Your task to perform on an android device: clear history in the chrome app Image 0: 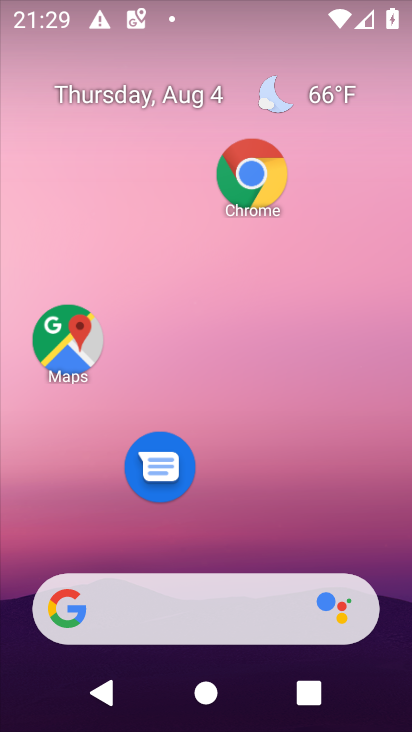
Step 0: press home button
Your task to perform on an android device: clear history in the chrome app Image 1: 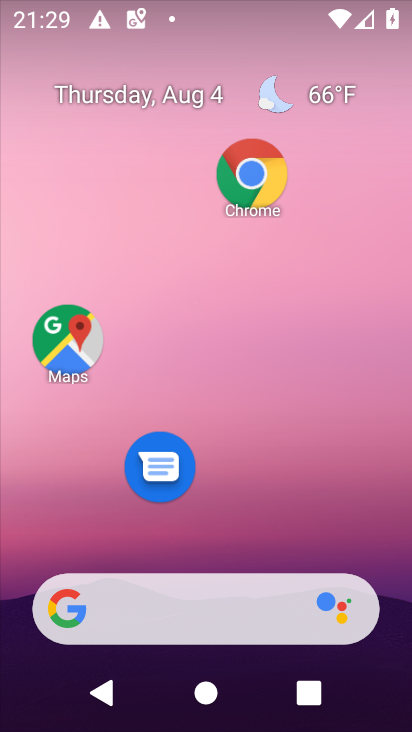
Step 1: drag from (300, 546) to (319, 0)
Your task to perform on an android device: clear history in the chrome app Image 2: 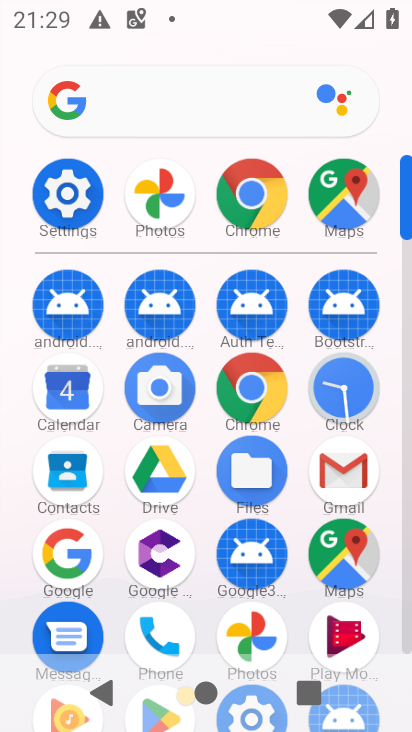
Step 2: click (272, 379)
Your task to perform on an android device: clear history in the chrome app Image 3: 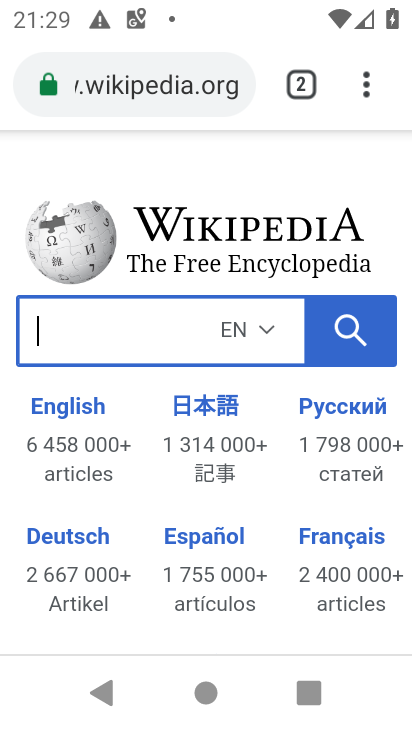
Step 3: drag from (366, 81) to (152, 521)
Your task to perform on an android device: clear history in the chrome app Image 4: 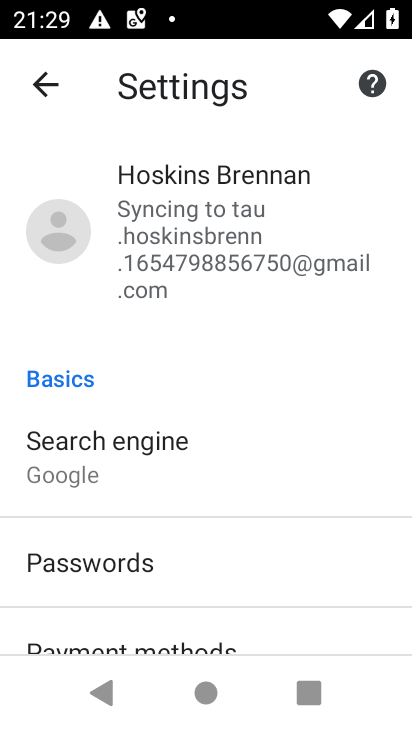
Step 4: drag from (277, 585) to (342, 137)
Your task to perform on an android device: clear history in the chrome app Image 5: 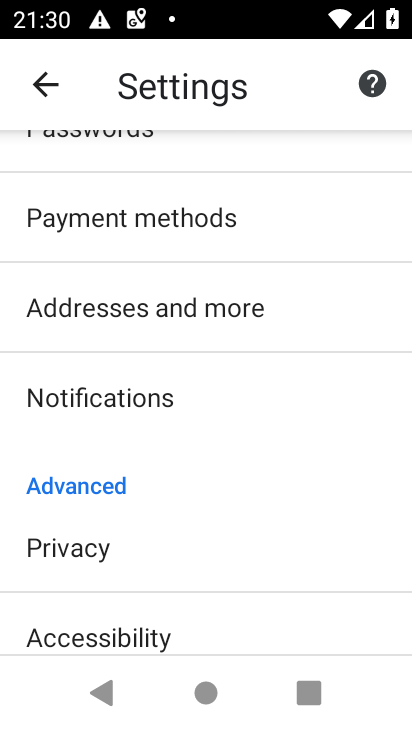
Step 5: click (43, 78)
Your task to perform on an android device: clear history in the chrome app Image 6: 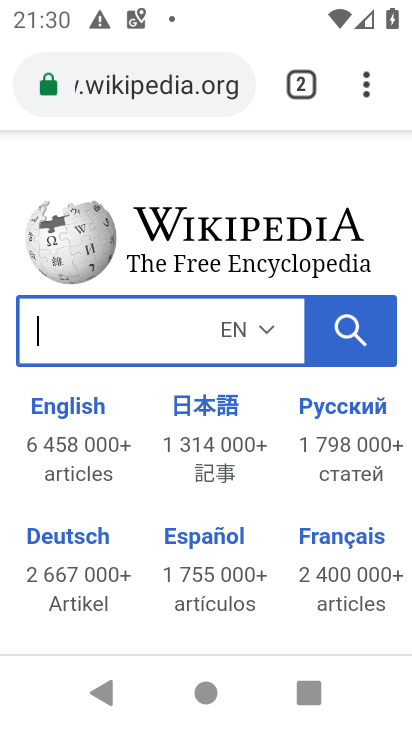
Step 6: drag from (365, 84) to (89, 157)
Your task to perform on an android device: clear history in the chrome app Image 7: 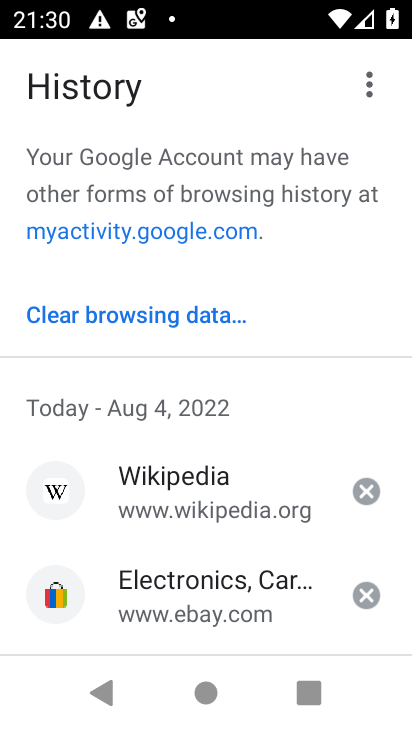
Step 7: drag from (313, 504) to (316, 166)
Your task to perform on an android device: clear history in the chrome app Image 8: 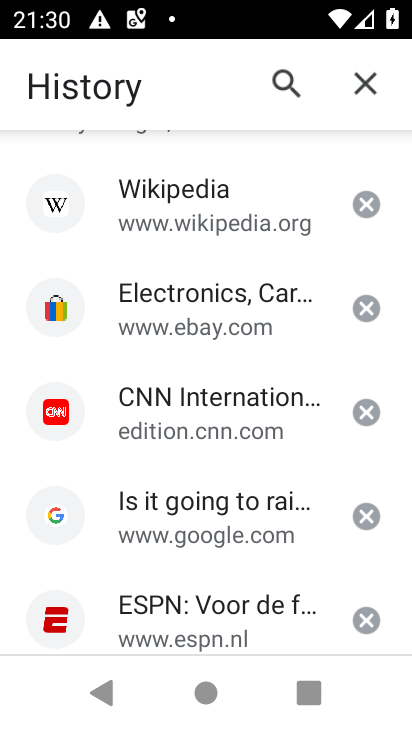
Step 8: click (370, 201)
Your task to perform on an android device: clear history in the chrome app Image 9: 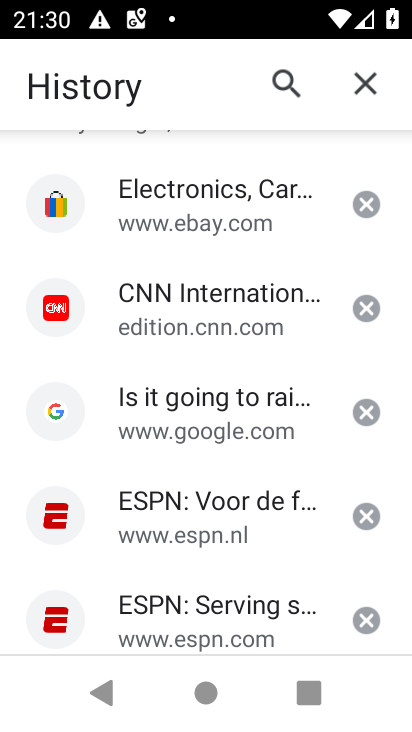
Step 9: click (370, 201)
Your task to perform on an android device: clear history in the chrome app Image 10: 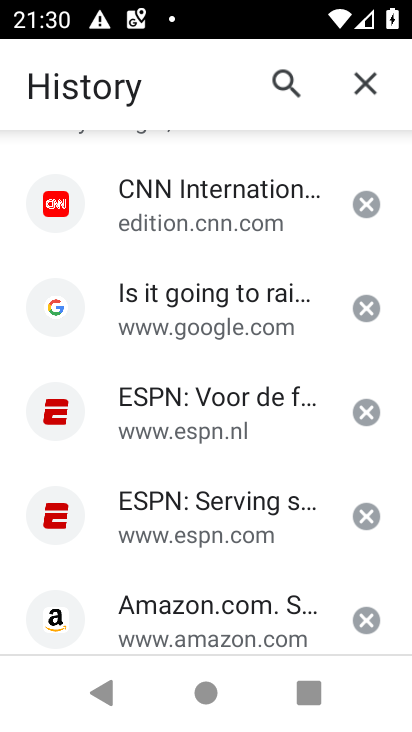
Step 10: click (370, 201)
Your task to perform on an android device: clear history in the chrome app Image 11: 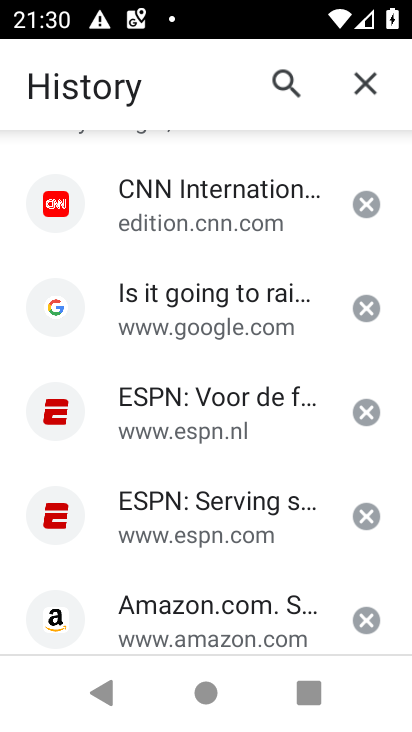
Step 11: click (370, 201)
Your task to perform on an android device: clear history in the chrome app Image 12: 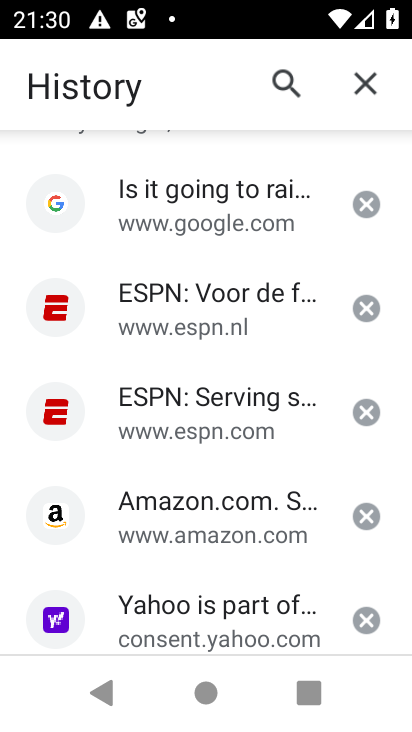
Step 12: click (370, 201)
Your task to perform on an android device: clear history in the chrome app Image 13: 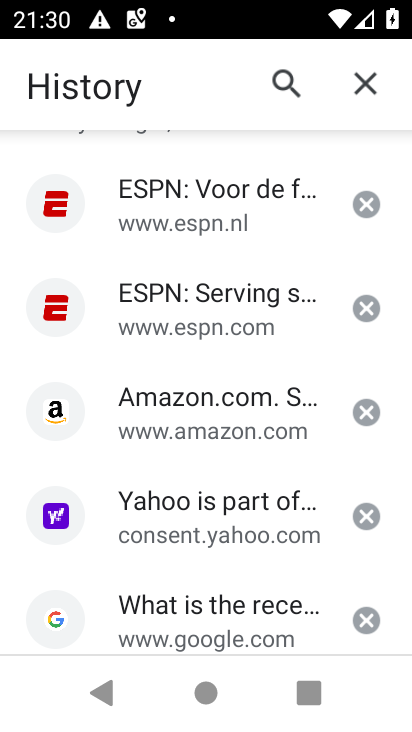
Step 13: click (370, 201)
Your task to perform on an android device: clear history in the chrome app Image 14: 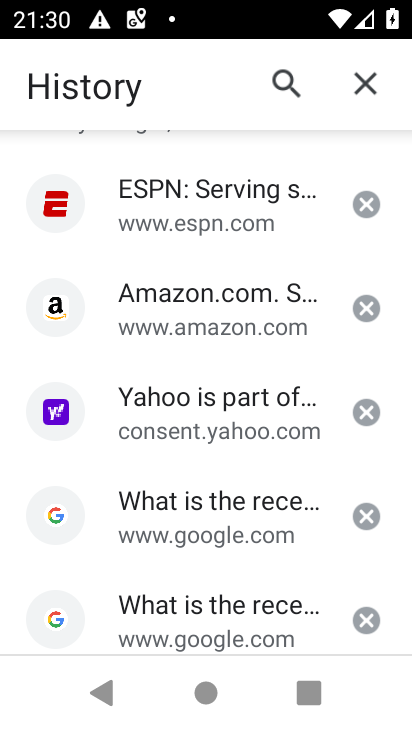
Step 14: click (370, 201)
Your task to perform on an android device: clear history in the chrome app Image 15: 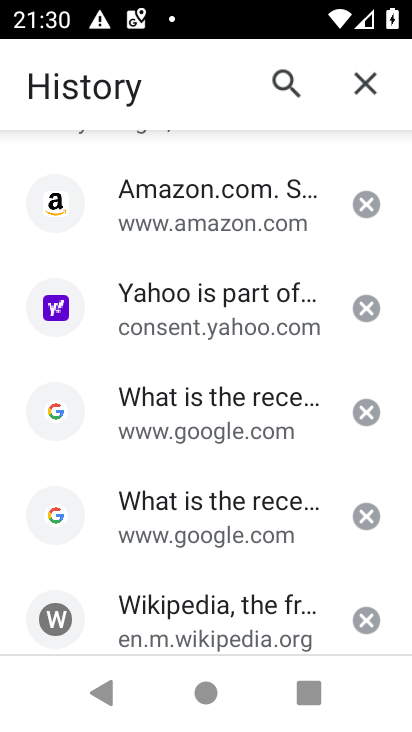
Step 15: click (370, 201)
Your task to perform on an android device: clear history in the chrome app Image 16: 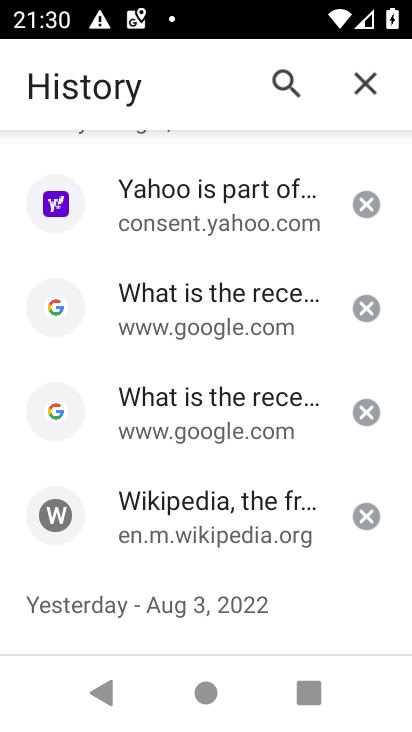
Step 16: click (370, 201)
Your task to perform on an android device: clear history in the chrome app Image 17: 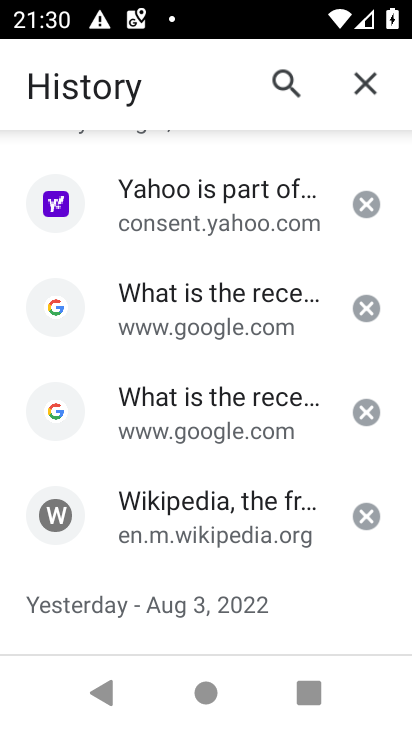
Step 17: click (370, 201)
Your task to perform on an android device: clear history in the chrome app Image 18: 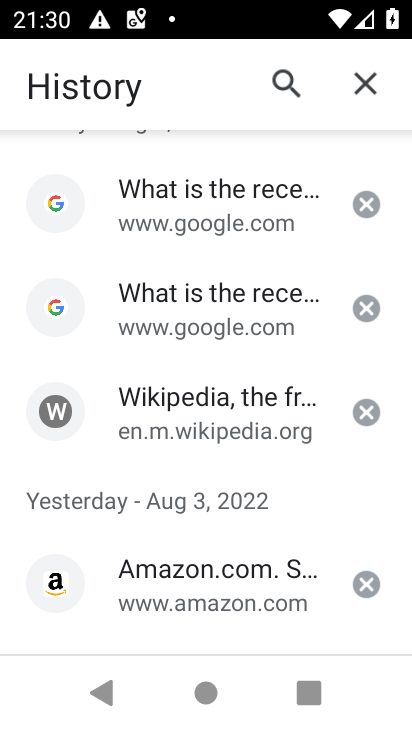
Step 18: click (370, 201)
Your task to perform on an android device: clear history in the chrome app Image 19: 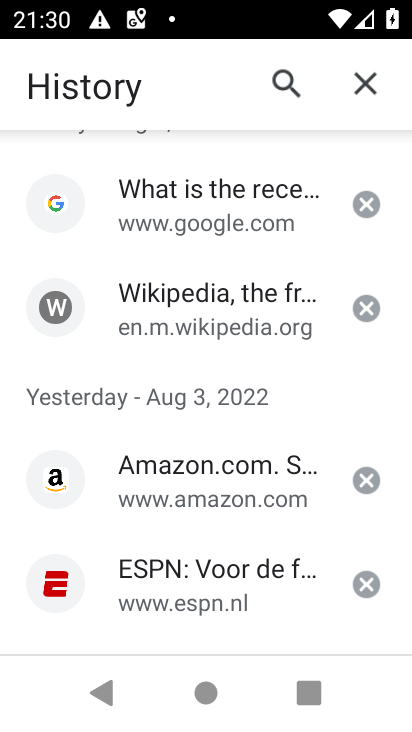
Step 19: click (370, 201)
Your task to perform on an android device: clear history in the chrome app Image 20: 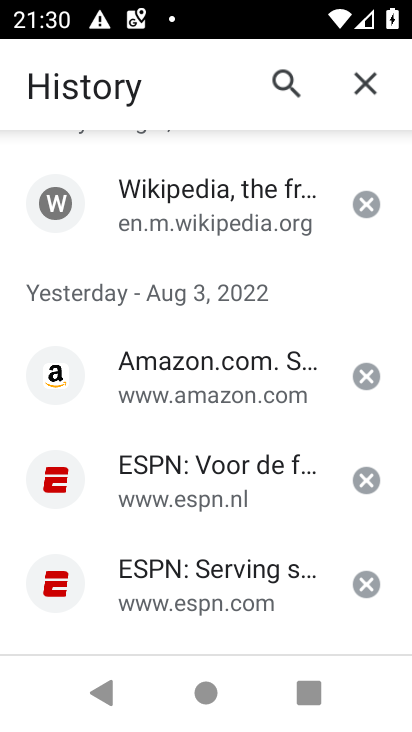
Step 20: click (370, 201)
Your task to perform on an android device: clear history in the chrome app Image 21: 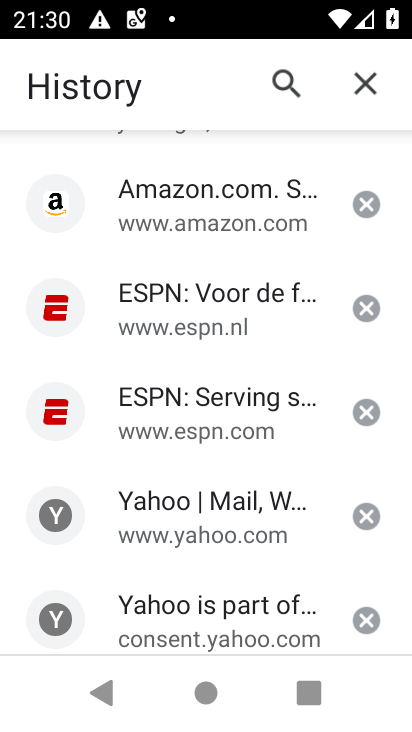
Step 21: click (370, 201)
Your task to perform on an android device: clear history in the chrome app Image 22: 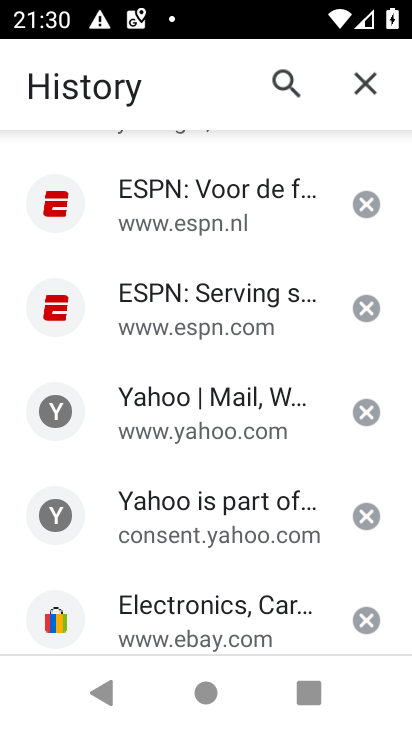
Step 22: click (370, 201)
Your task to perform on an android device: clear history in the chrome app Image 23: 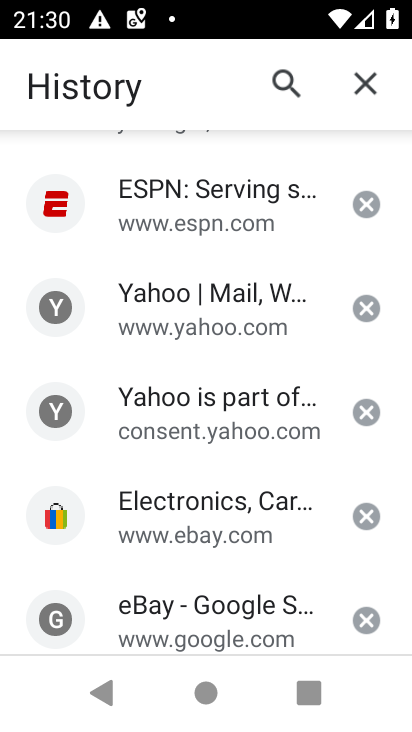
Step 23: click (370, 201)
Your task to perform on an android device: clear history in the chrome app Image 24: 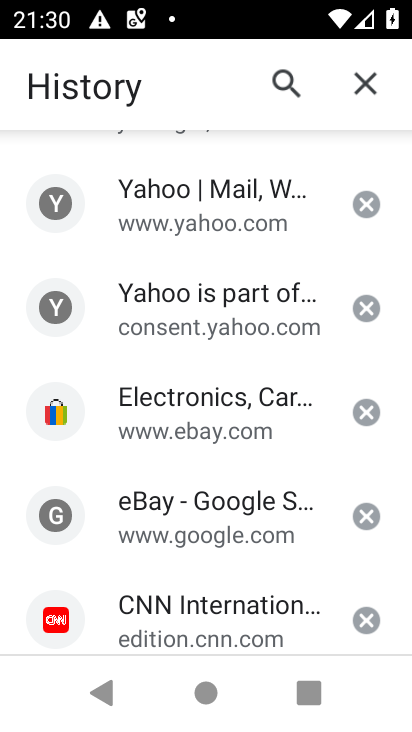
Step 24: click (370, 201)
Your task to perform on an android device: clear history in the chrome app Image 25: 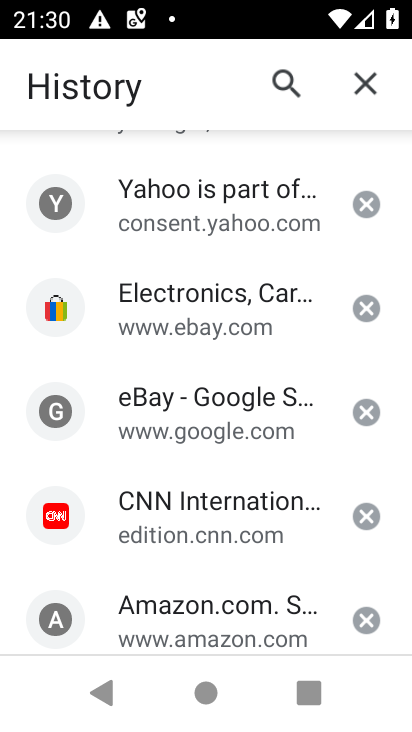
Step 25: click (370, 201)
Your task to perform on an android device: clear history in the chrome app Image 26: 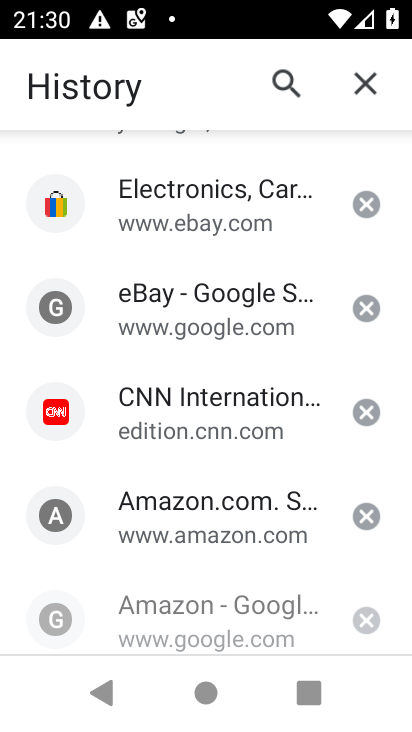
Step 26: click (370, 201)
Your task to perform on an android device: clear history in the chrome app Image 27: 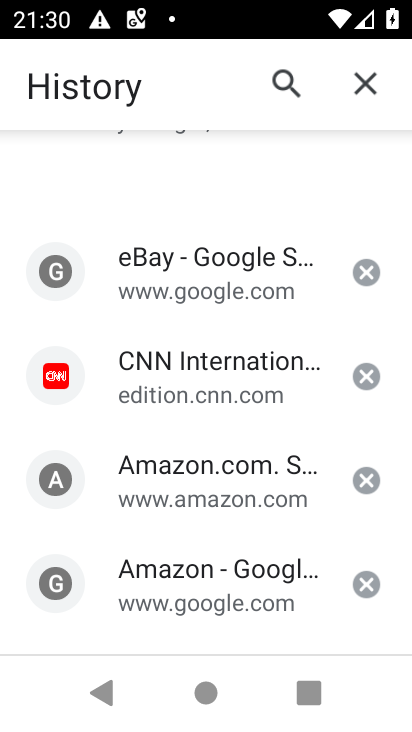
Step 27: click (370, 201)
Your task to perform on an android device: clear history in the chrome app Image 28: 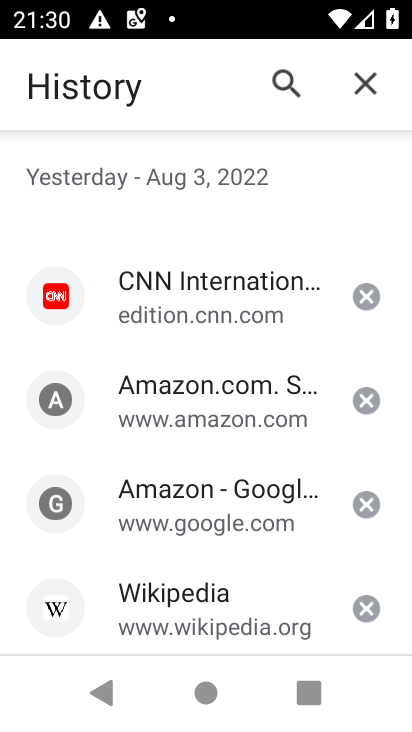
Step 28: click (370, 201)
Your task to perform on an android device: clear history in the chrome app Image 29: 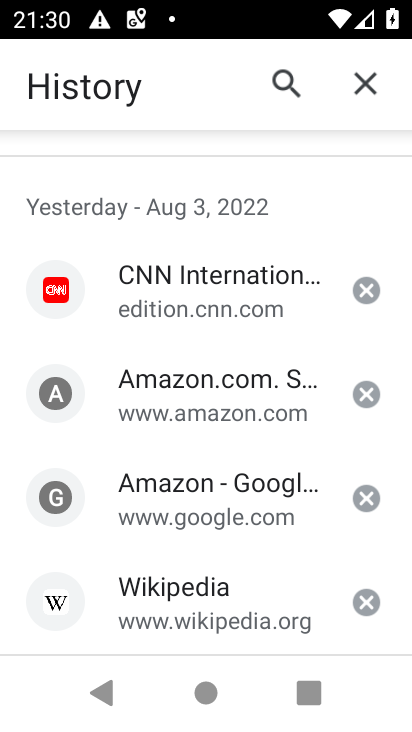
Step 29: click (370, 201)
Your task to perform on an android device: clear history in the chrome app Image 30: 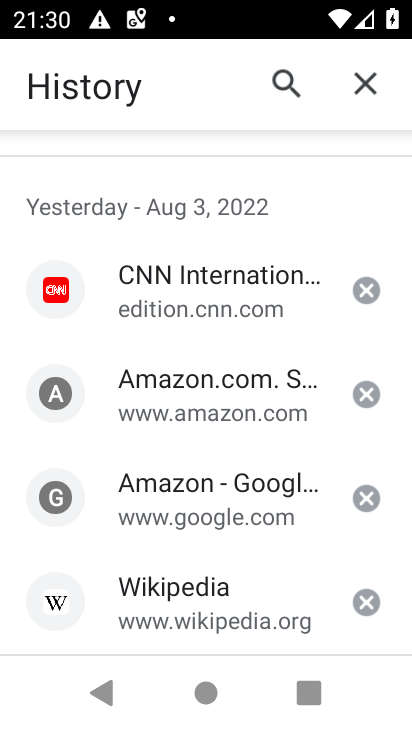
Step 30: click (373, 277)
Your task to perform on an android device: clear history in the chrome app Image 31: 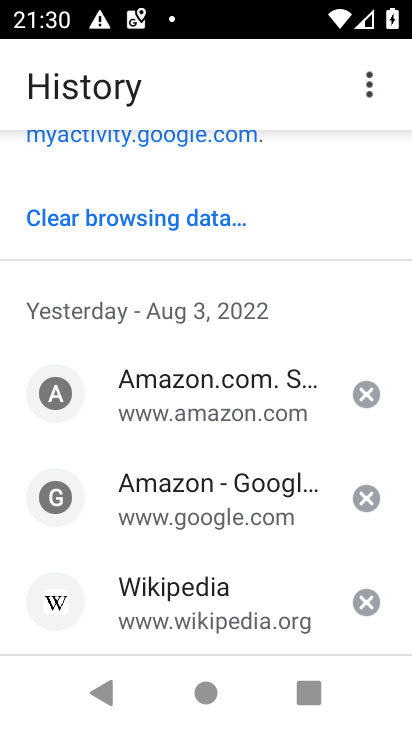
Step 31: click (361, 404)
Your task to perform on an android device: clear history in the chrome app Image 32: 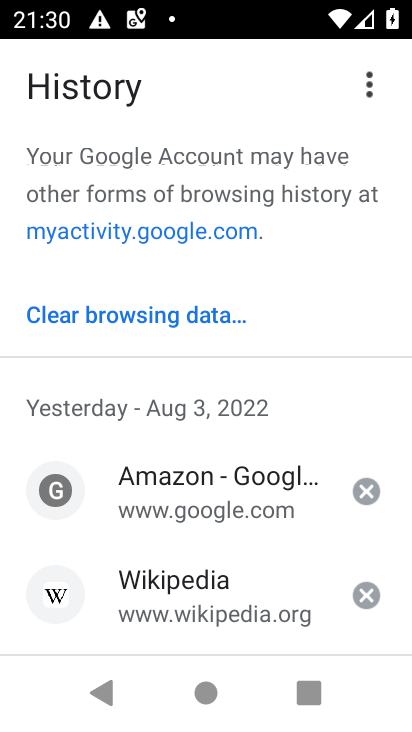
Step 32: click (368, 503)
Your task to perform on an android device: clear history in the chrome app Image 33: 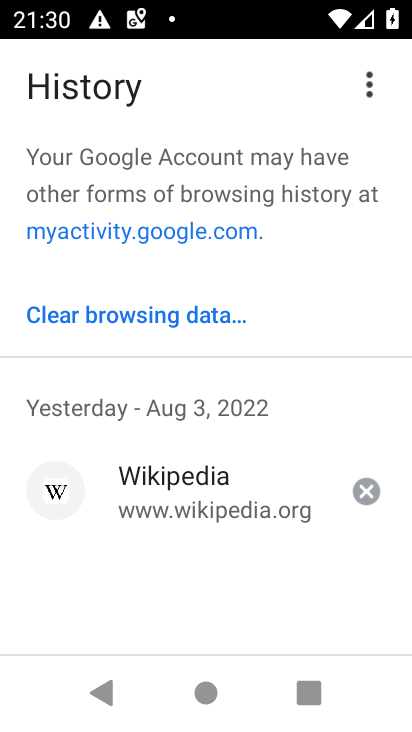
Step 33: click (367, 604)
Your task to perform on an android device: clear history in the chrome app Image 34: 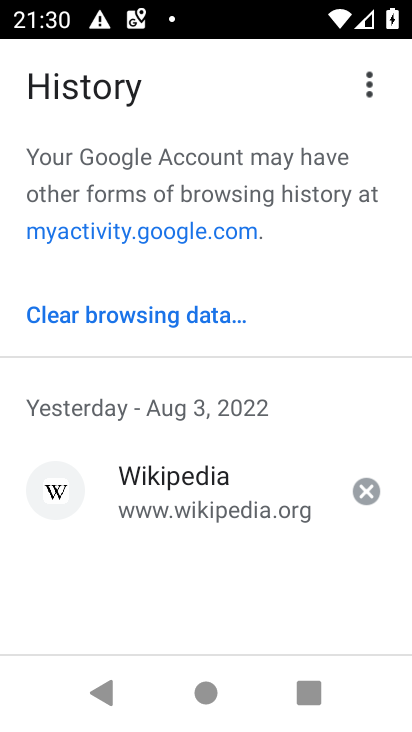
Step 34: click (367, 498)
Your task to perform on an android device: clear history in the chrome app Image 35: 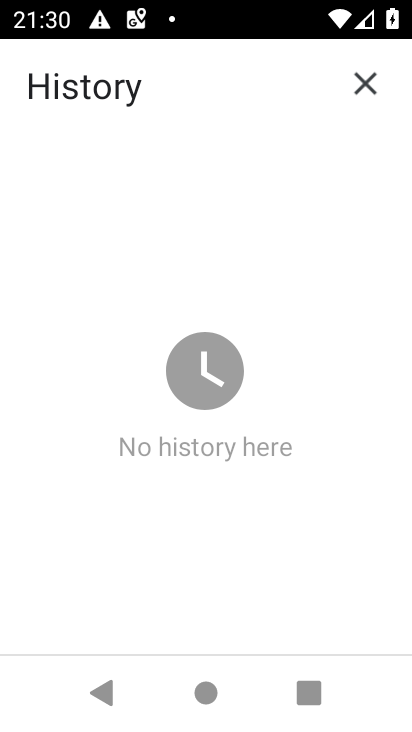
Step 35: task complete